Your task to perform on an android device: add a contact Image 0: 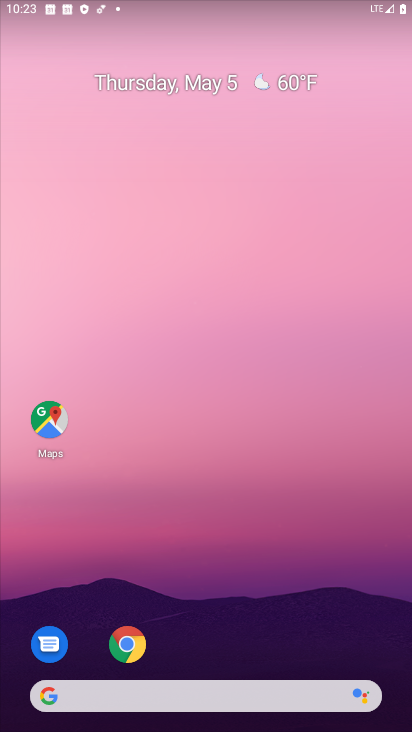
Step 0: drag from (207, 657) to (252, 204)
Your task to perform on an android device: add a contact Image 1: 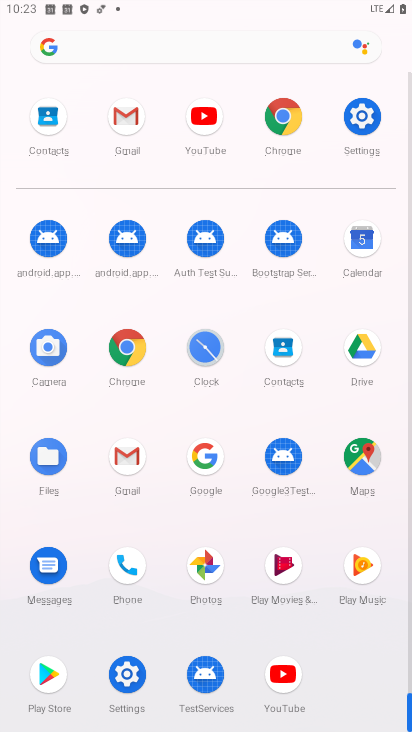
Step 1: click (285, 334)
Your task to perform on an android device: add a contact Image 2: 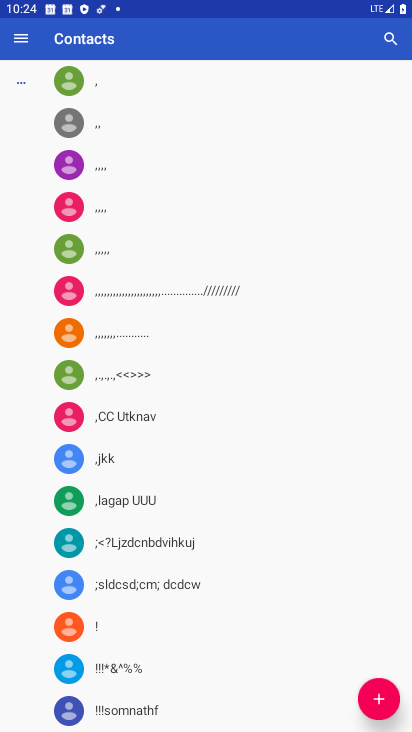
Step 2: click (384, 706)
Your task to perform on an android device: add a contact Image 3: 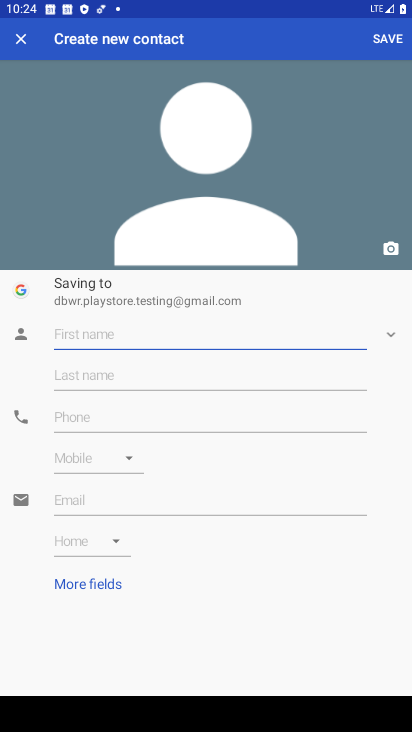
Step 3: click (161, 329)
Your task to perform on an android device: add a contact Image 4: 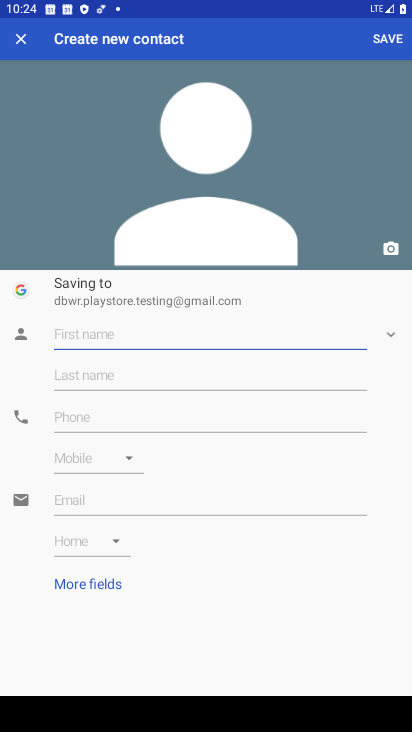
Step 4: type "hgfd"
Your task to perform on an android device: add a contact Image 5: 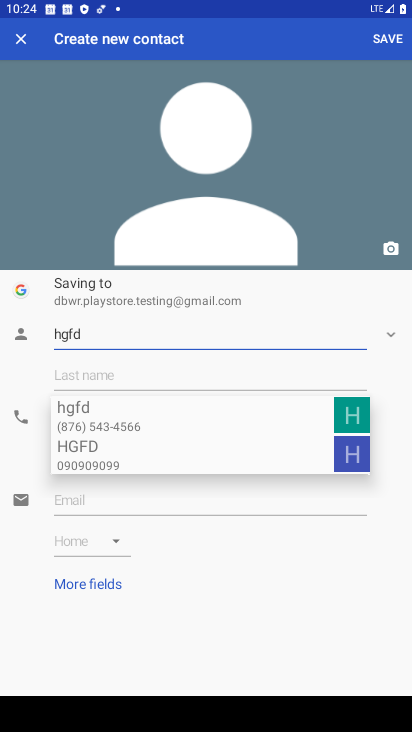
Step 5: type "yt"
Your task to perform on an android device: add a contact Image 6: 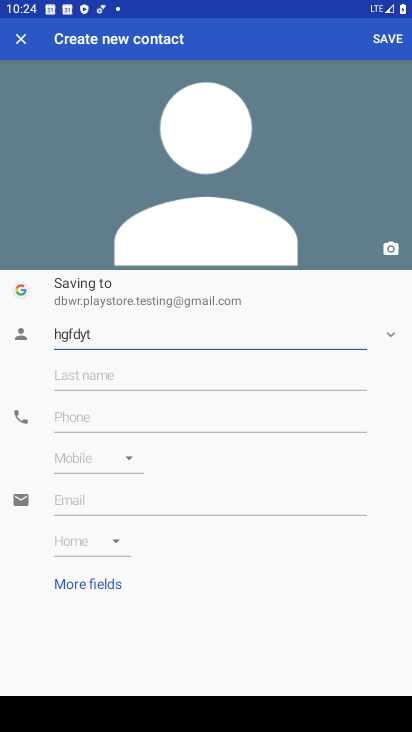
Step 6: click (377, 39)
Your task to perform on an android device: add a contact Image 7: 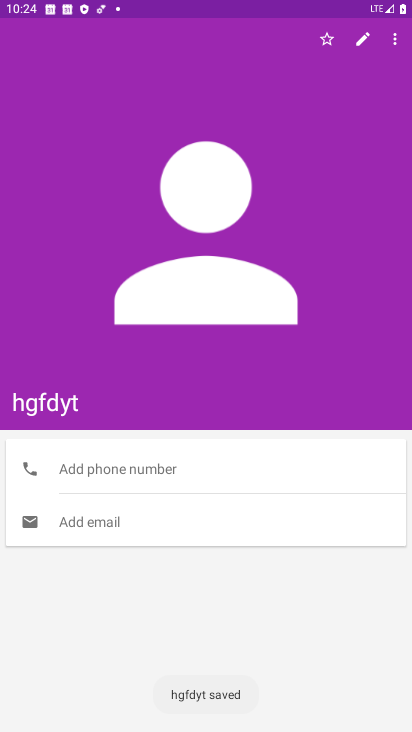
Step 7: task complete